Your task to perform on an android device: toggle priority inbox in the gmail app Image 0: 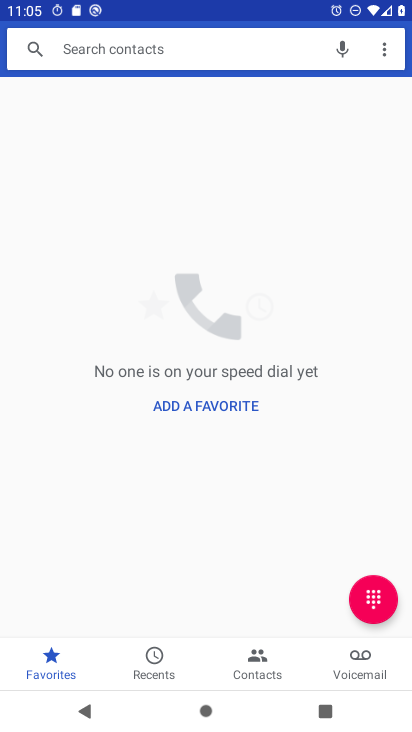
Step 0: press back button
Your task to perform on an android device: toggle priority inbox in the gmail app Image 1: 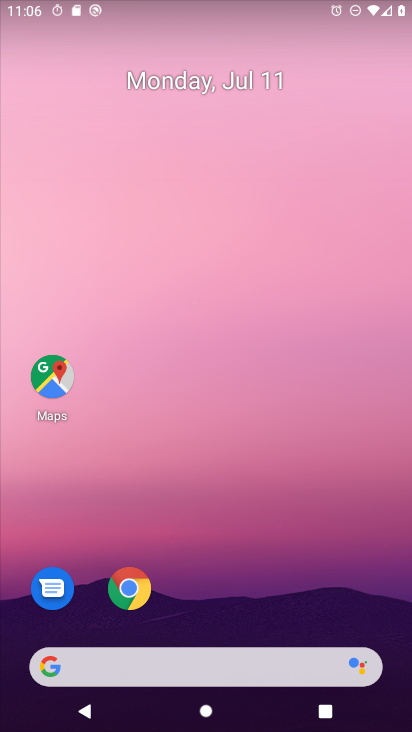
Step 1: drag from (232, 625) to (285, 22)
Your task to perform on an android device: toggle priority inbox in the gmail app Image 2: 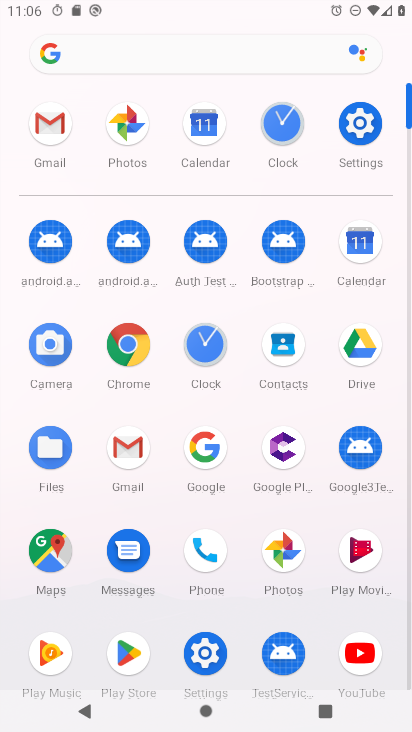
Step 2: click (41, 129)
Your task to perform on an android device: toggle priority inbox in the gmail app Image 3: 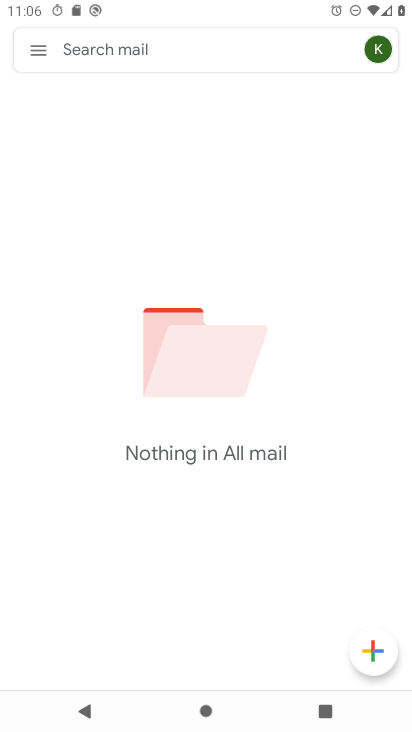
Step 3: click (30, 45)
Your task to perform on an android device: toggle priority inbox in the gmail app Image 4: 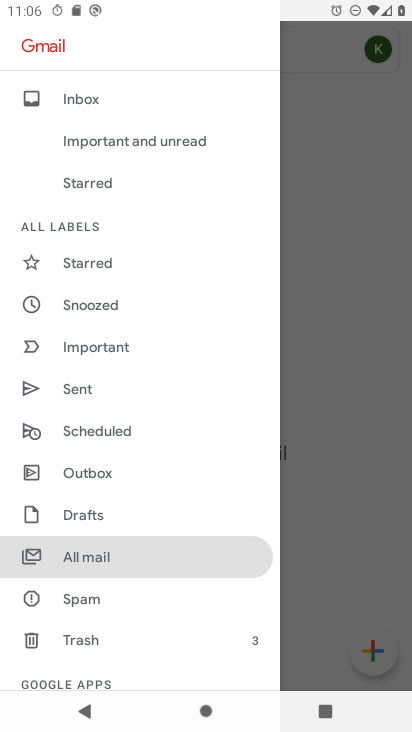
Step 4: drag from (148, 658) to (148, 171)
Your task to perform on an android device: toggle priority inbox in the gmail app Image 5: 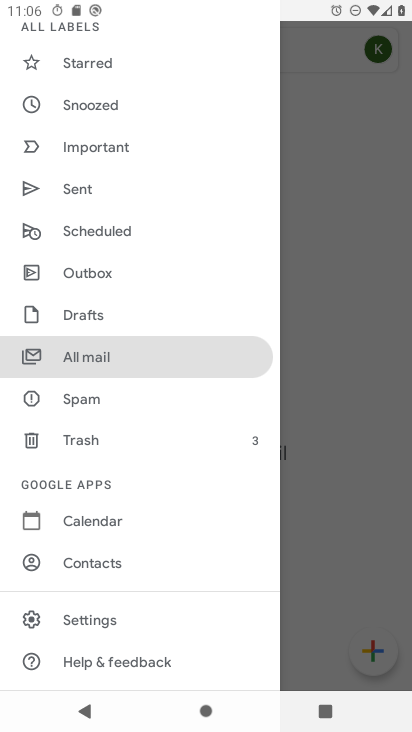
Step 5: click (86, 613)
Your task to perform on an android device: toggle priority inbox in the gmail app Image 6: 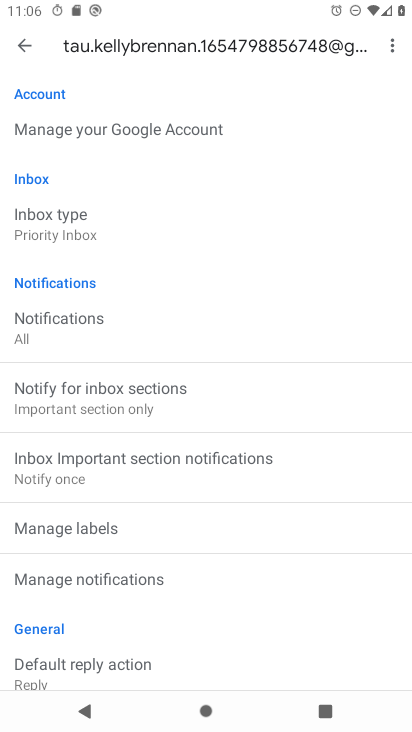
Step 6: click (55, 224)
Your task to perform on an android device: toggle priority inbox in the gmail app Image 7: 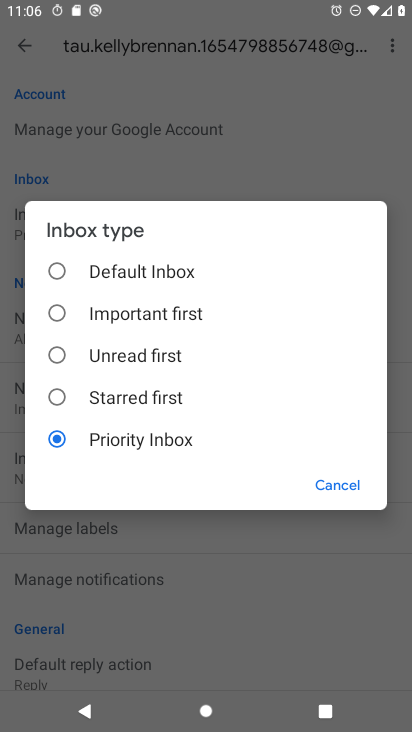
Step 7: click (58, 434)
Your task to perform on an android device: toggle priority inbox in the gmail app Image 8: 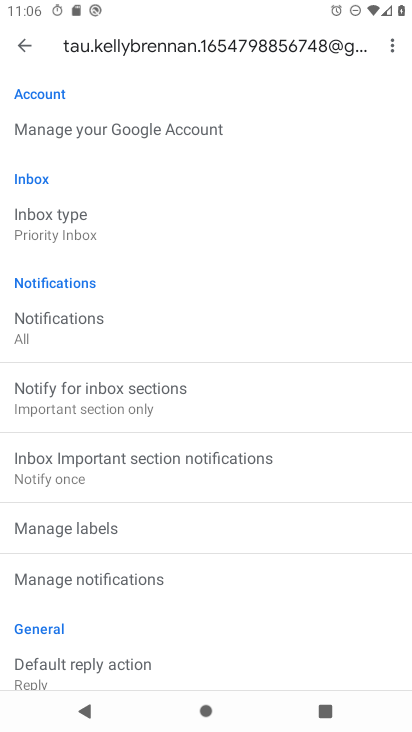
Step 8: task complete